Your task to perform on an android device: Search for Mexican restaurants on Maps Image 0: 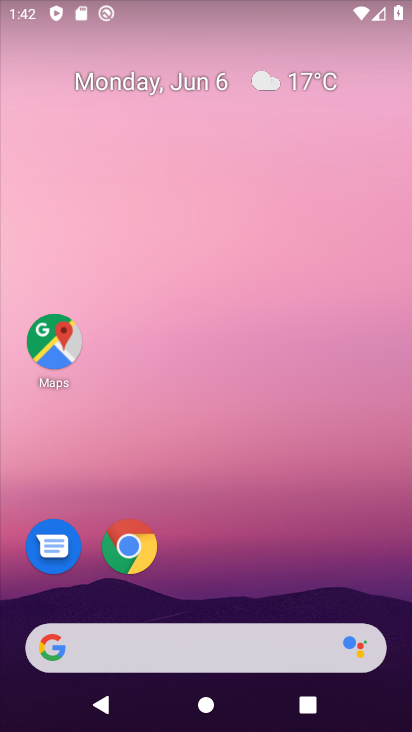
Step 0: click (52, 346)
Your task to perform on an android device: Search for Mexican restaurants on Maps Image 1: 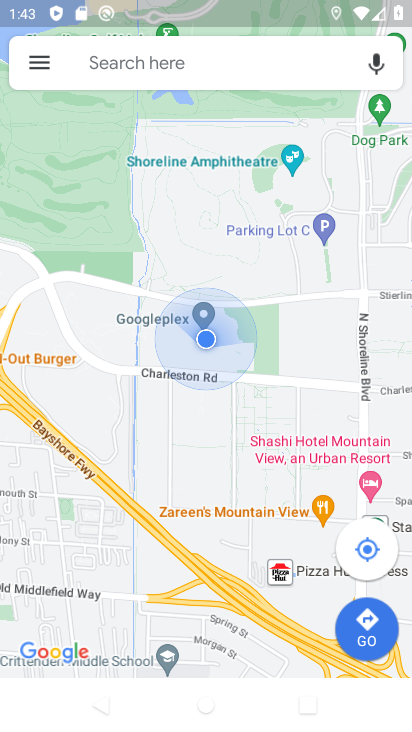
Step 1: click (212, 58)
Your task to perform on an android device: Search for Mexican restaurants on Maps Image 2: 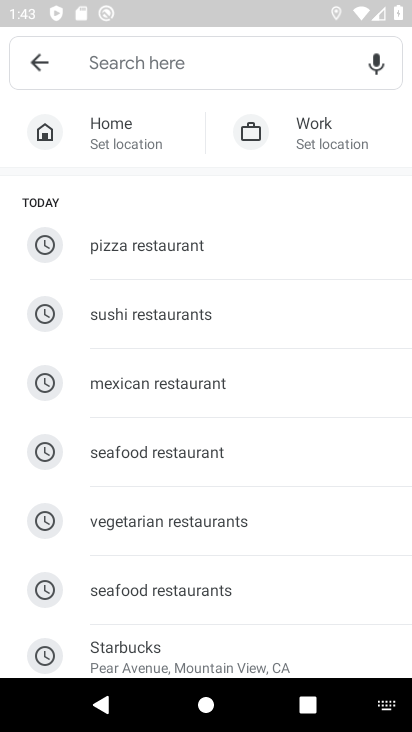
Step 2: type "Mexican restaurants"
Your task to perform on an android device: Search for Mexican restaurants on Maps Image 3: 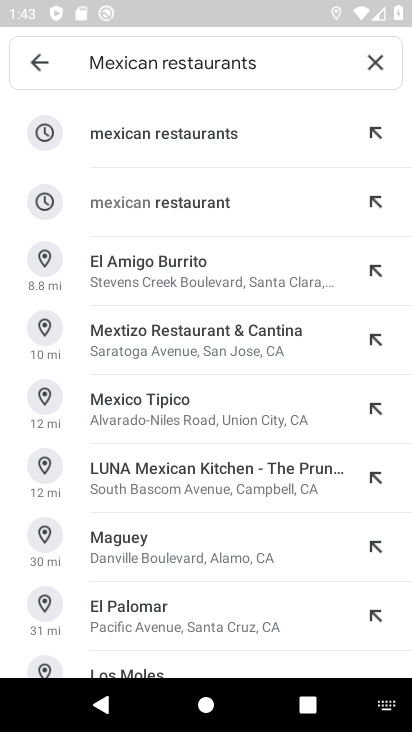
Step 3: click (131, 138)
Your task to perform on an android device: Search for Mexican restaurants on Maps Image 4: 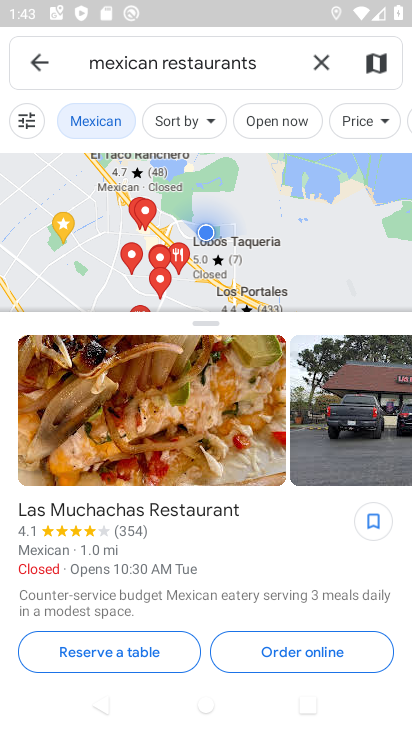
Step 4: task complete